Your task to perform on an android device: Go to display settings Image 0: 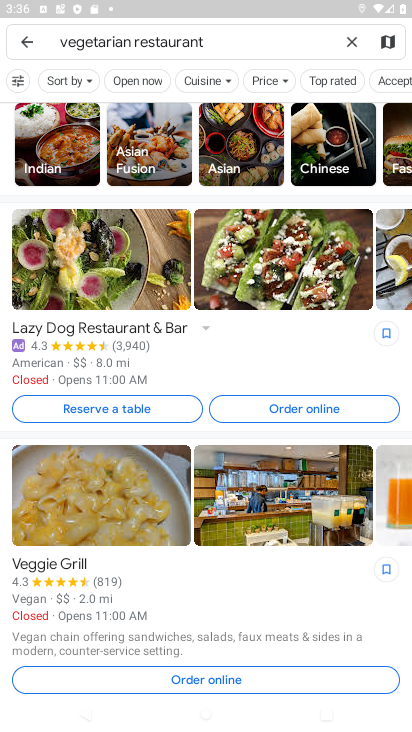
Step 0: press home button
Your task to perform on an android device: Go to display settings Image 1: 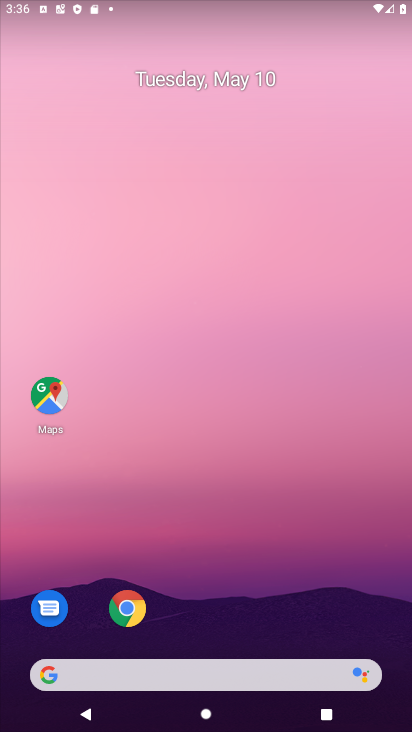
Step 1: drag from (378, 625) to (307, 120)
Your task to perform on an android device: Go to display settings Image 2: 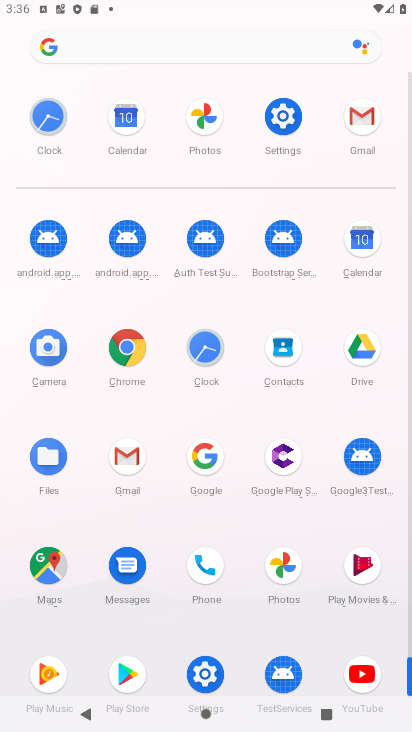
Step 2: click (205, 671)
Your task to perform on an android device: Go to display settings Image 3: 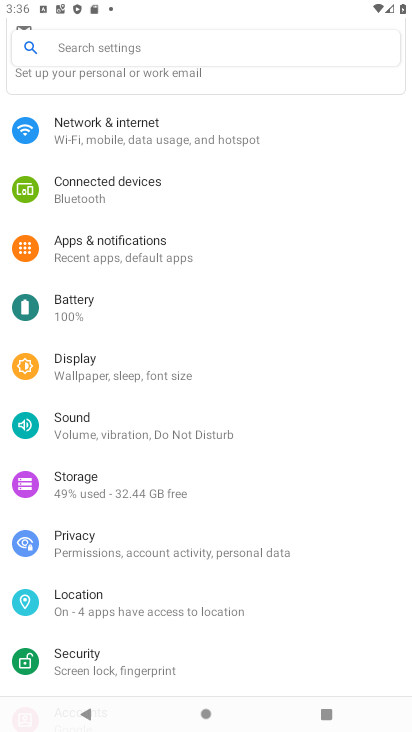
Step 3: click (75, 363)
Your task to perform on an android device: Go to display settings Image 4: 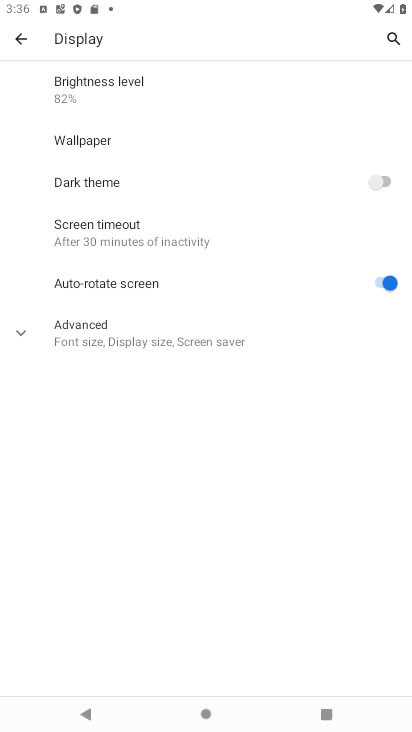
Step 4: click (17, 331)
Your task to perform on an android device: Go to display settings Image 5: 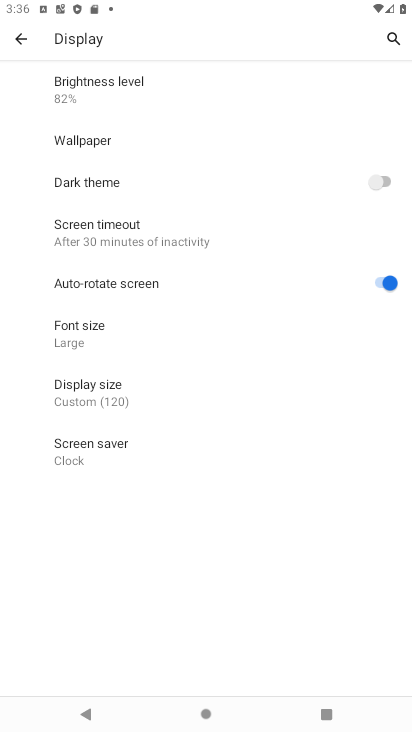
Step 5: task complete